Your task to perform on an android device: Do I have any events tomorrow? Image 0: 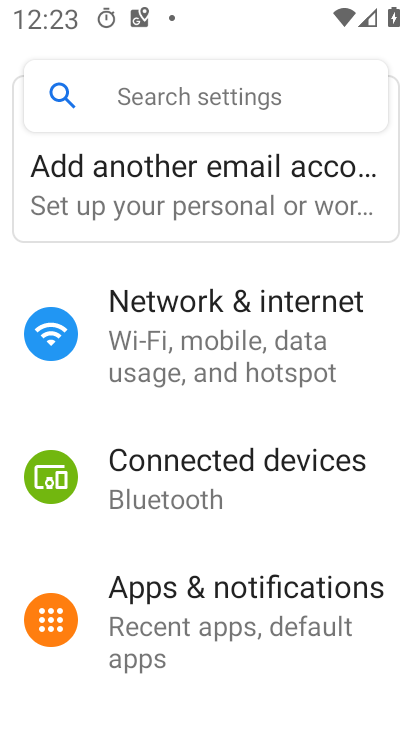
Step 0: press home button
Your task to perform on an android device: Do I have any events tomorrow? Image 1: 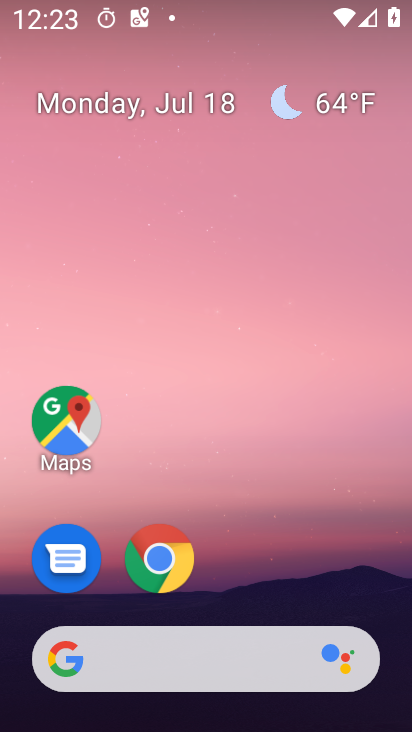
Step 1: drag from (331, 552) to (364, 153)
Your task to perform on an android device: Do I have any events tomorrow? Image 2: 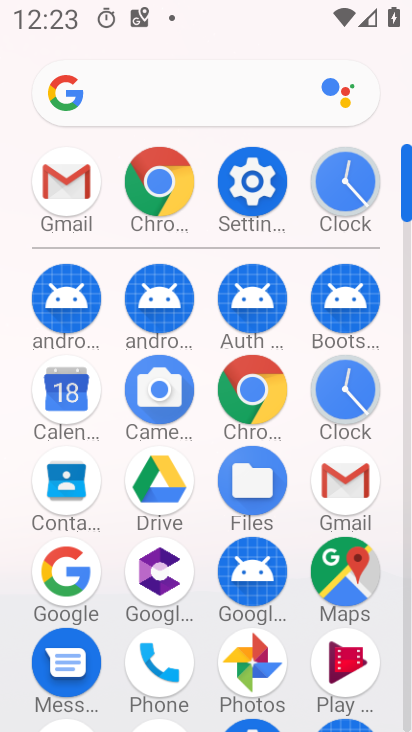
Step 2: click (76, 399)
Your task to perform on an android device: Do I have any events tomorrow? Image 3: 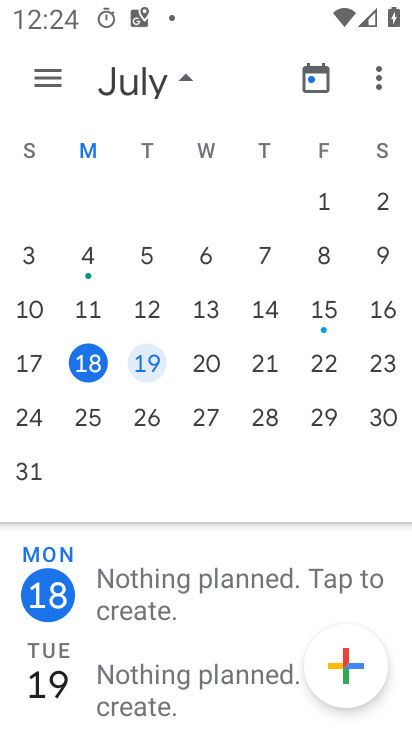
Step 3: click (147, 365)
Your task to perform on an android device: Do I have any events tomorrow? Image 4: 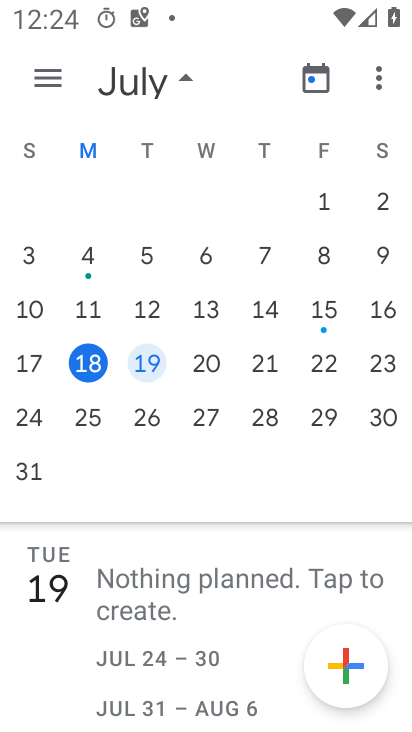
Step 4: task complete